Your task to perform on an android device: Show me popular videos on Youtube Image 0: 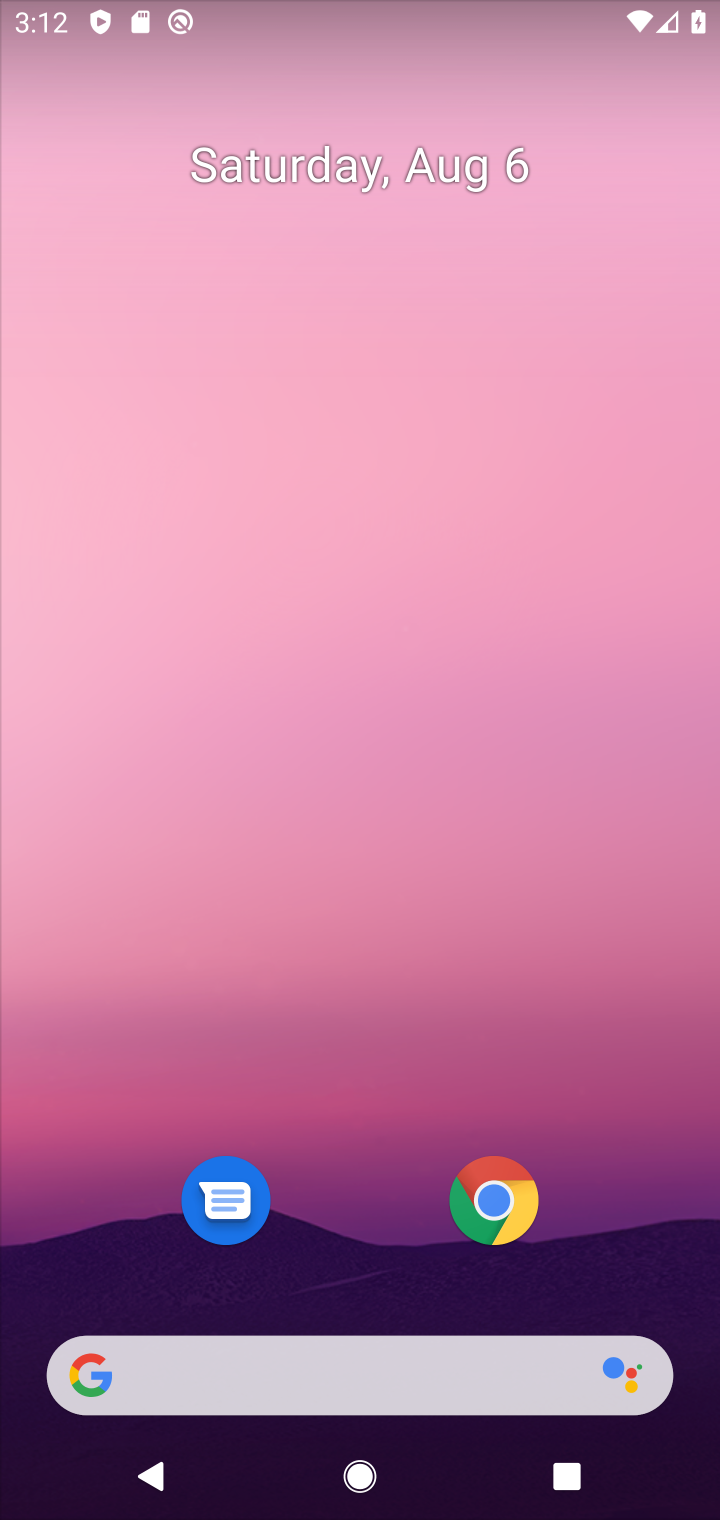
Step 0: drag from (451, 1141) to (474, 247)
Your task to perform on an android device: Show me popular videos on Youtube Image 1: 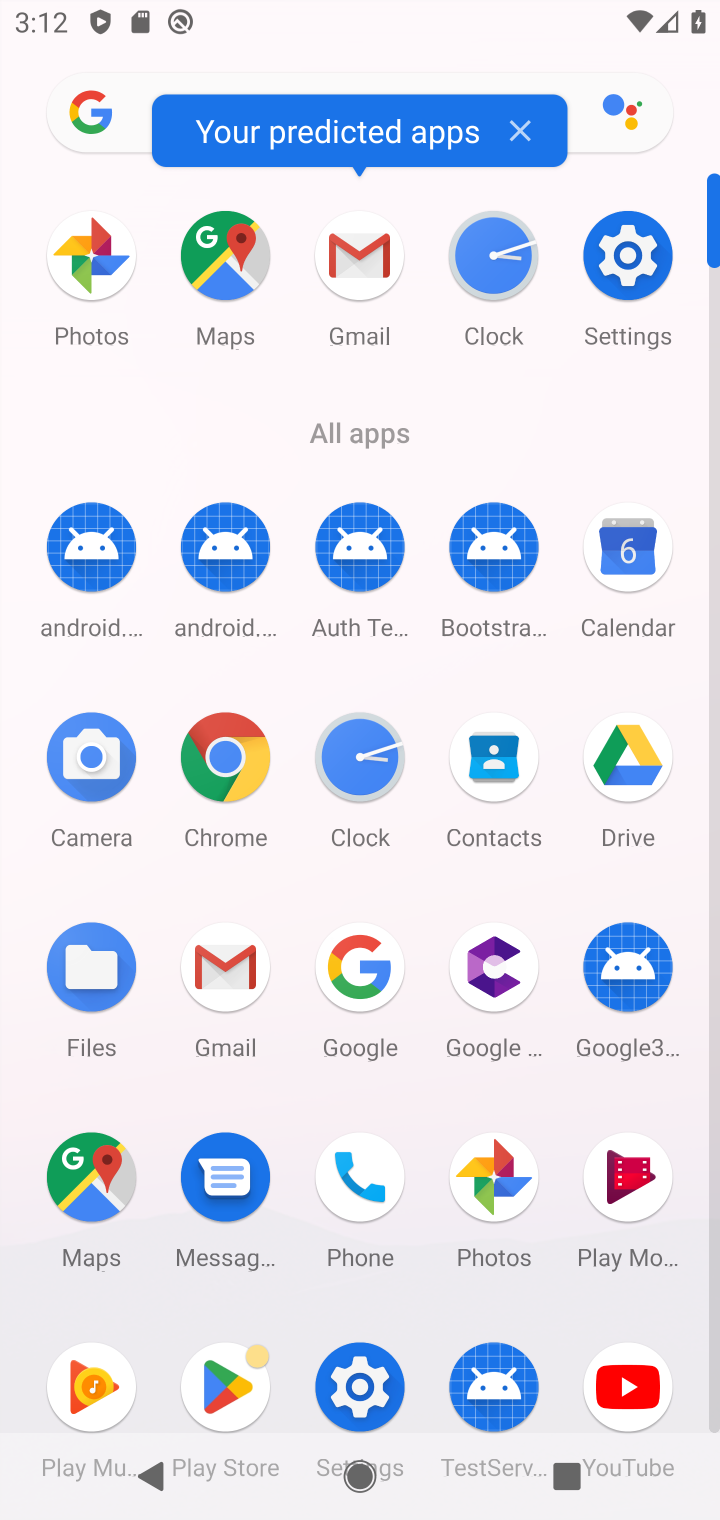
Step 1: click (625, 1397)
Your task to perform on an android device: Show me popular videos on Youtube Image 2: 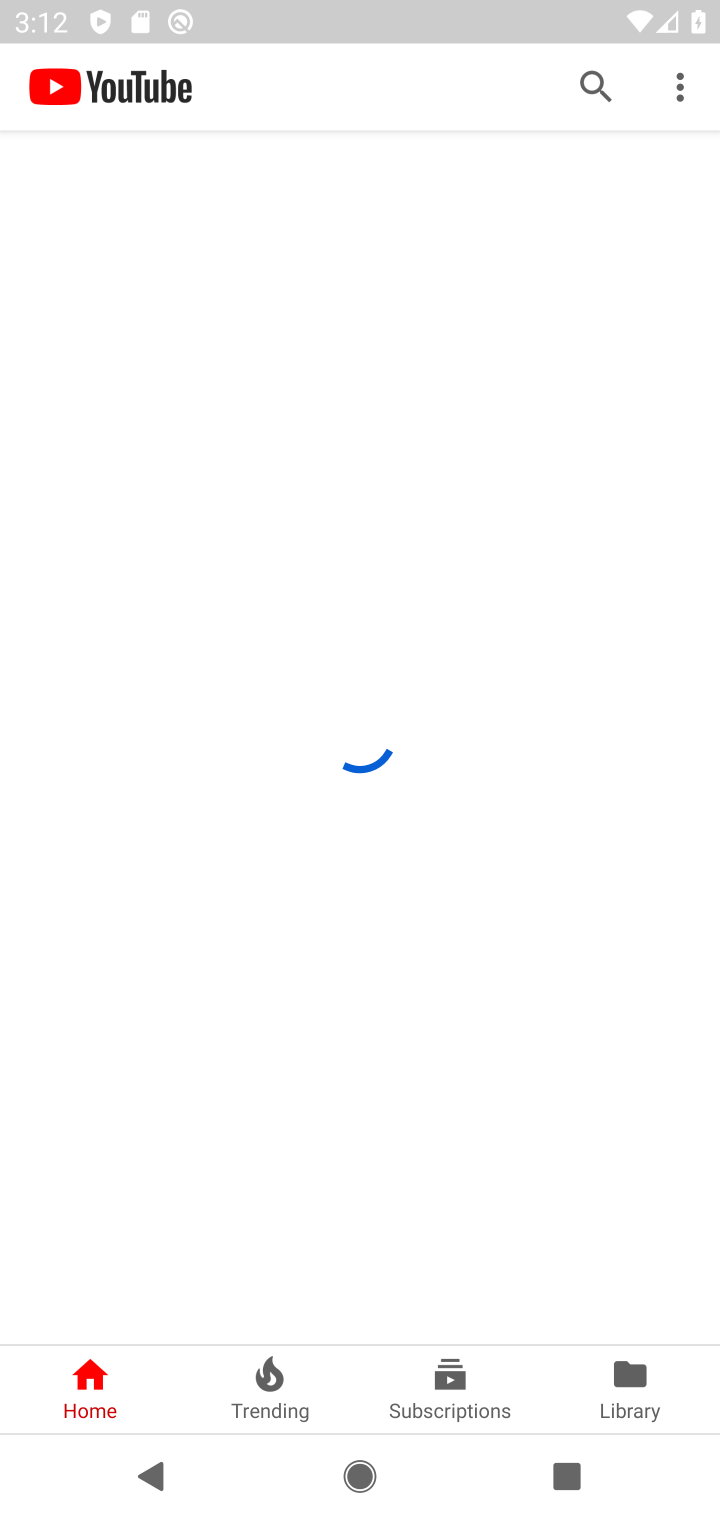
Step 2: click (586, 86)
Your task to perform on an android device: Show me popular videos on Youtube Image 3: 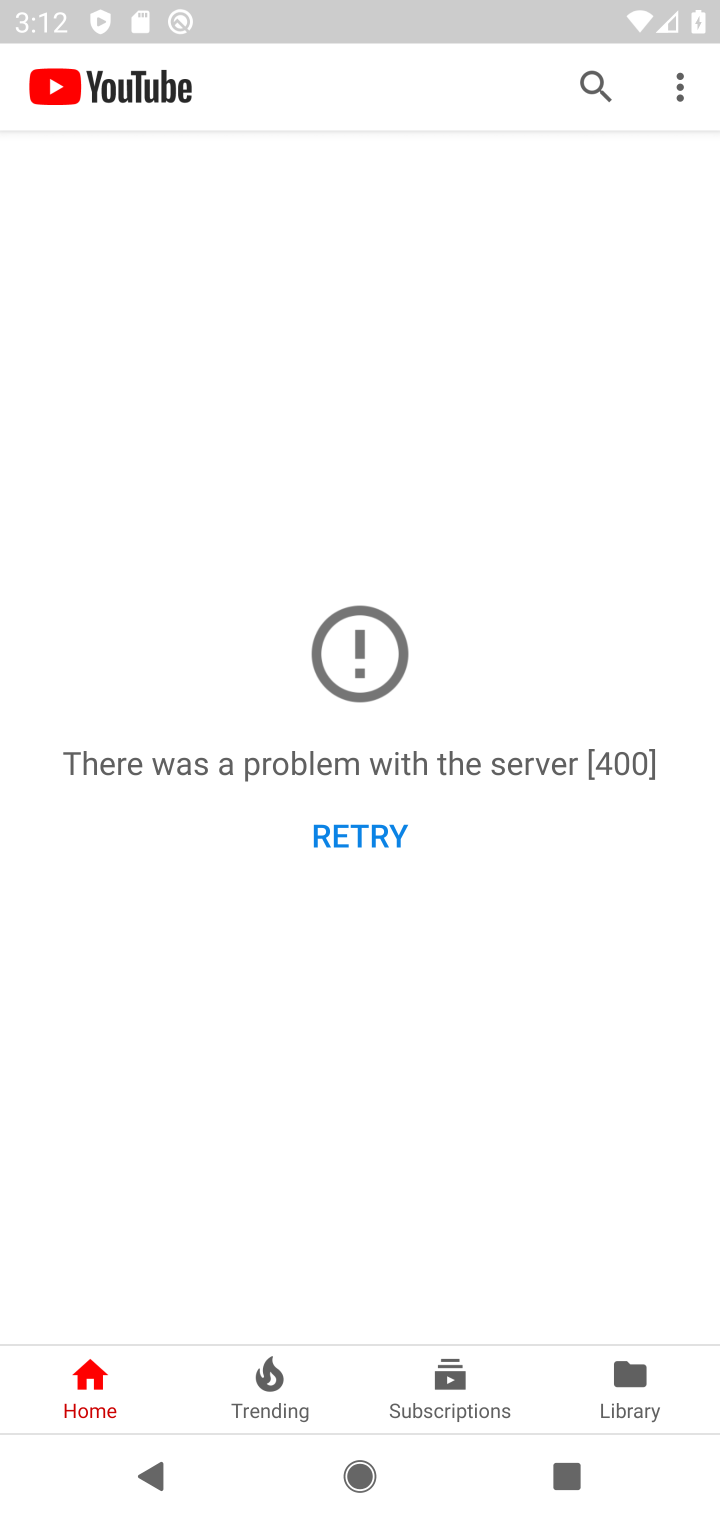
Step 3: click (588, 82)
Your task to perform on an android device: Show me popular videos on Youtube Image 4: 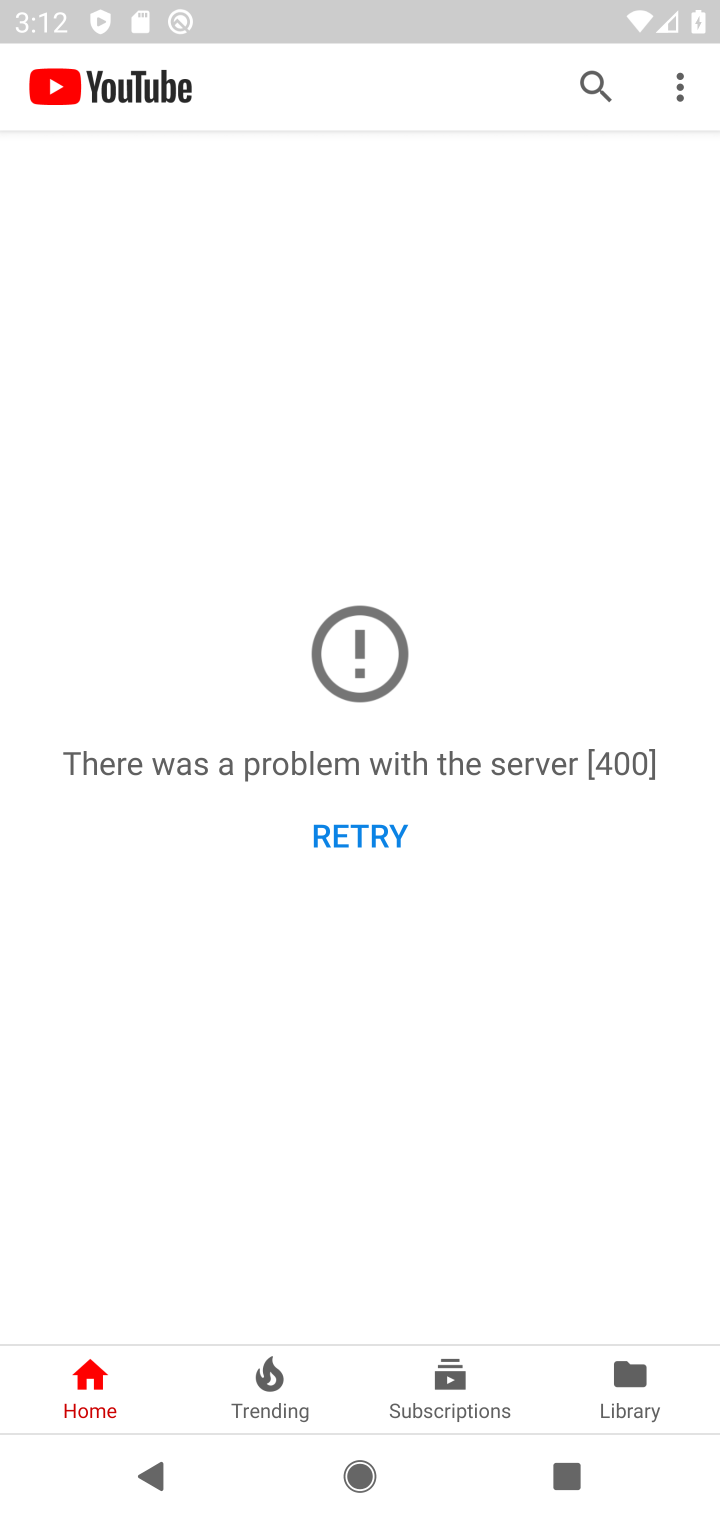
Step 4: click (601, 91)
Your task to perform on an android device: Show me popular videos on Youtube Image 5: 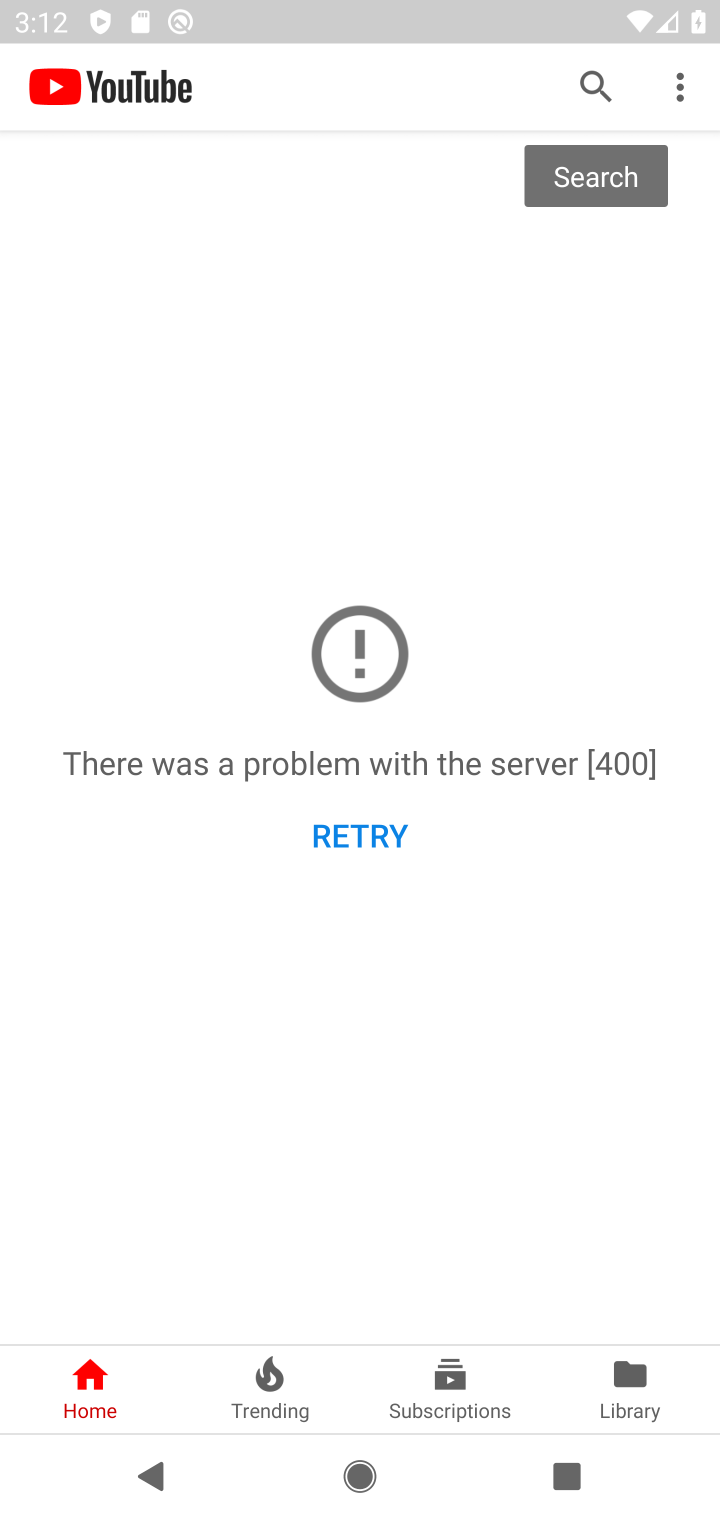
Step 5: click (592, 77)
Your task to perform on an android device: Show me popular videos on Youtube Image 6: 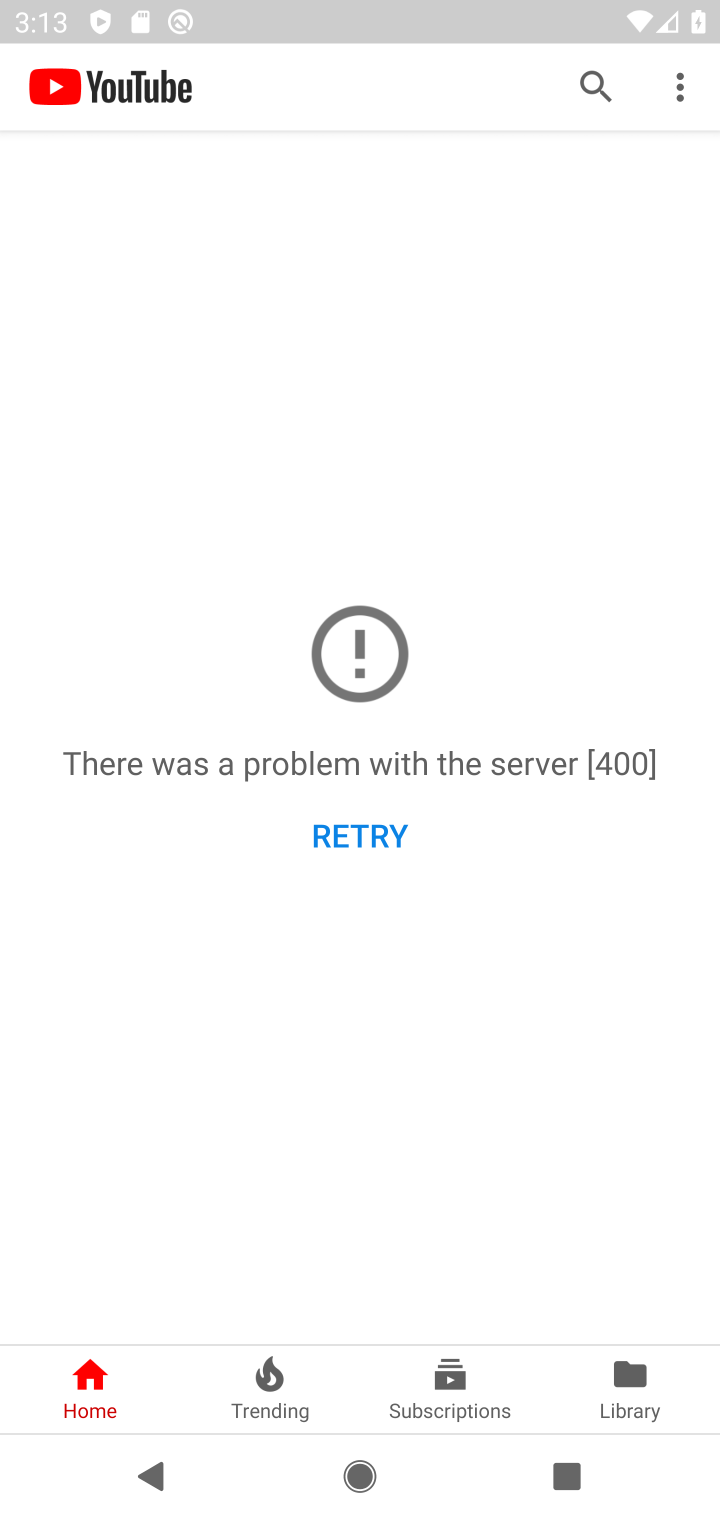
Step 6: task complete